Your task to perform on an android device: Open calendar and show me the second week of next month Image 0: 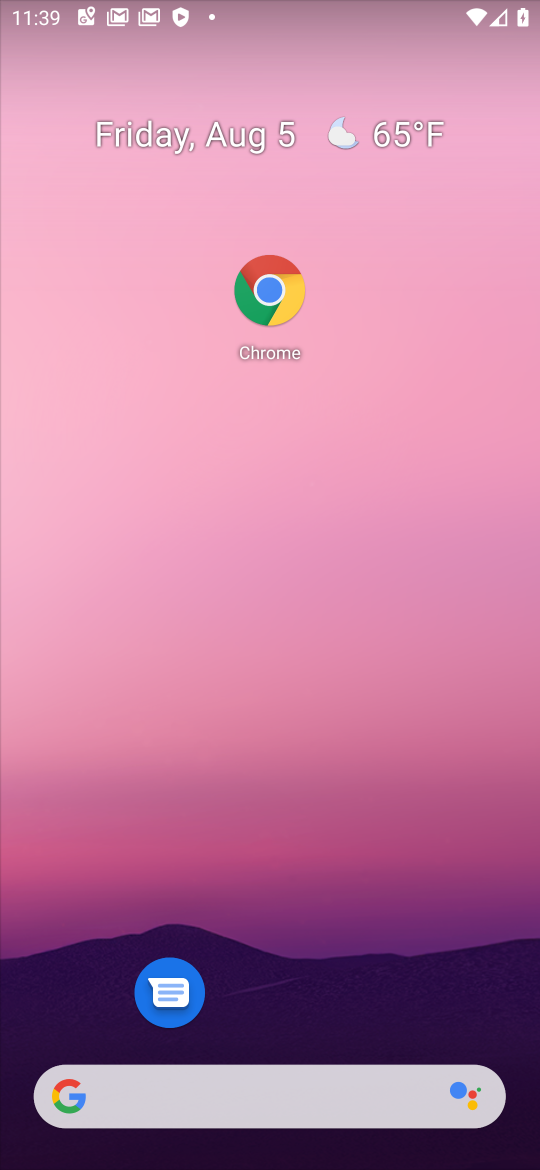
Step 0: drag from (425, 1017) to (513, 966)
Your task to perform on an android device: Open calendar and show me the second week of next month Image 1: 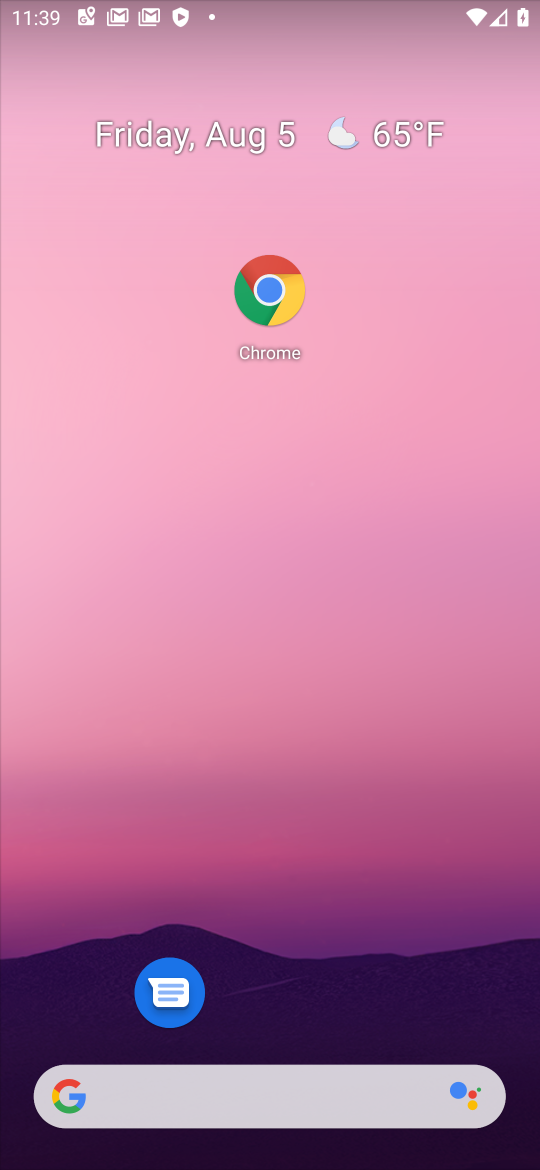
Step 1: drag from (311, 914) to (501, 23)
Your task to perform on an android device: Open calendar and show me the second week of next month Image 2: 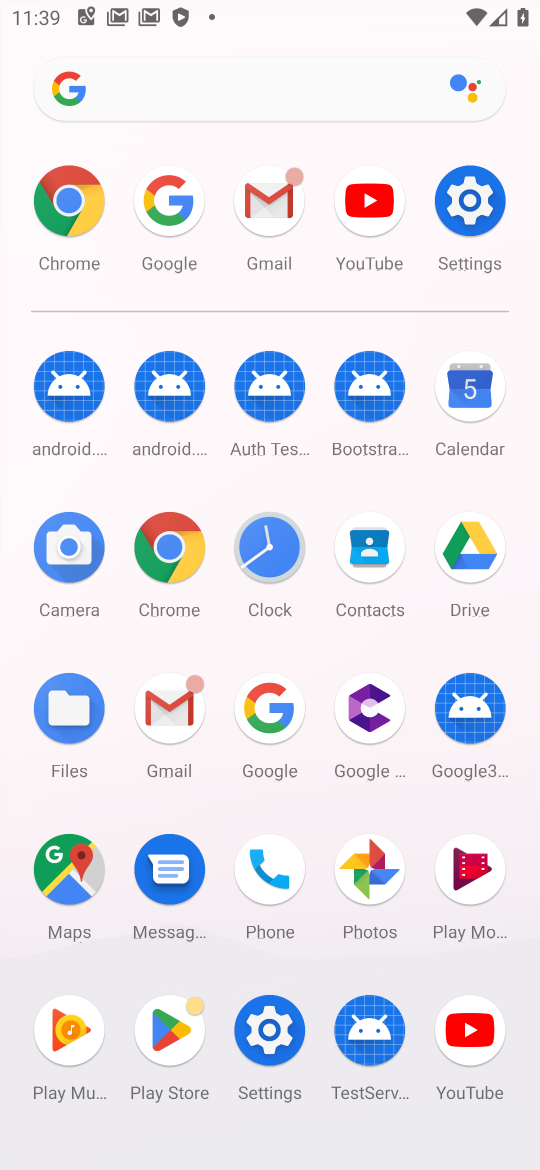
Step 2: click (472, 416)
Your task to perform on an android device: Open calendar and show me the second week of next month Image 3: 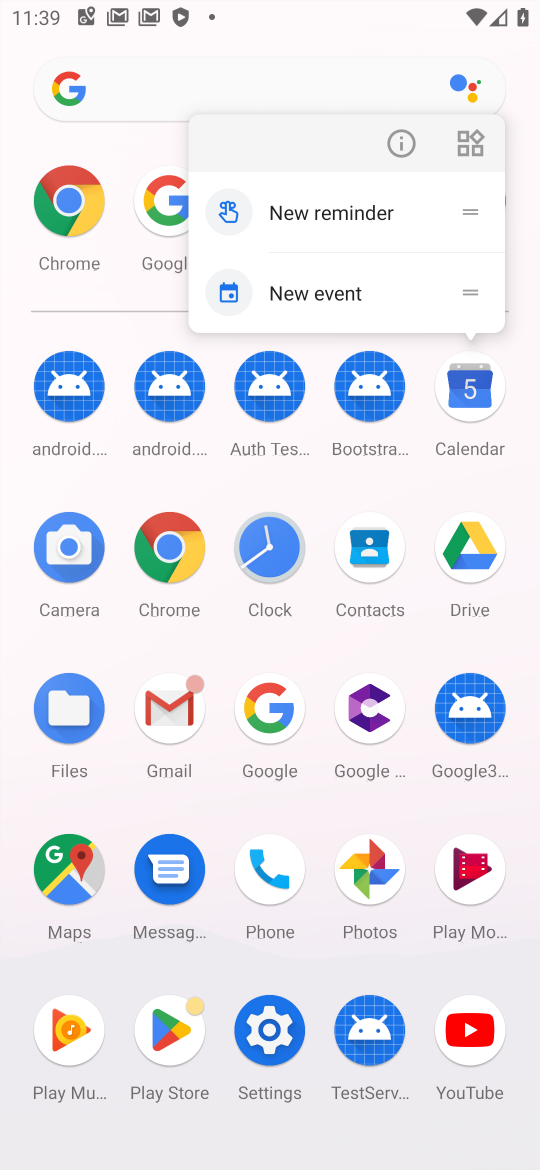
Step 3: click (472, 394)
Your task to perform on an android device: Open calendar and show me the second week of next month Image 4: 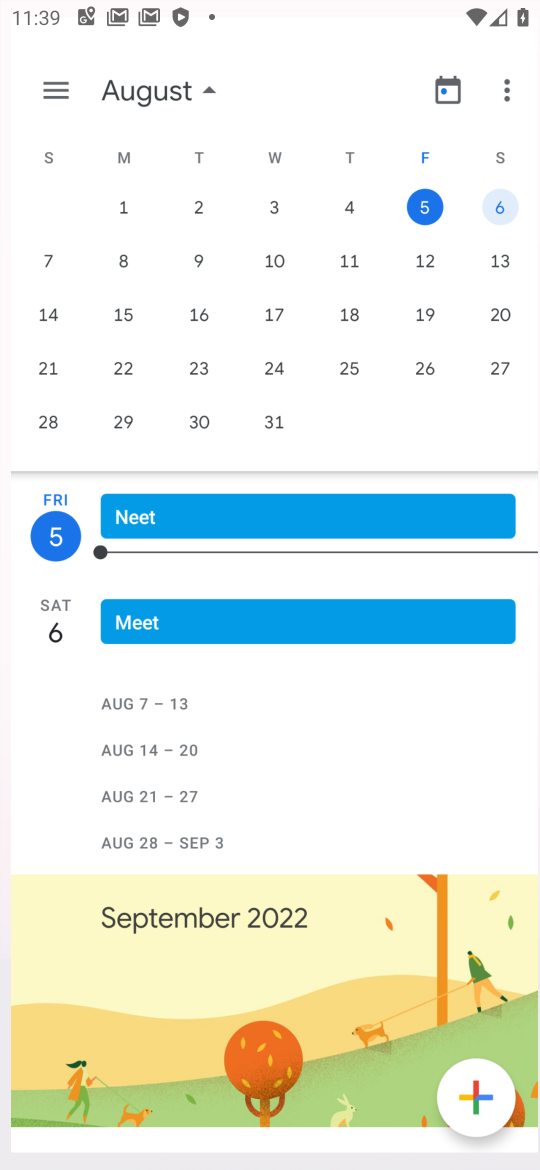
Step 4: click (472, 394)
Your task to perform on an android device: Open calendar and show me the second week of next month Image 5: 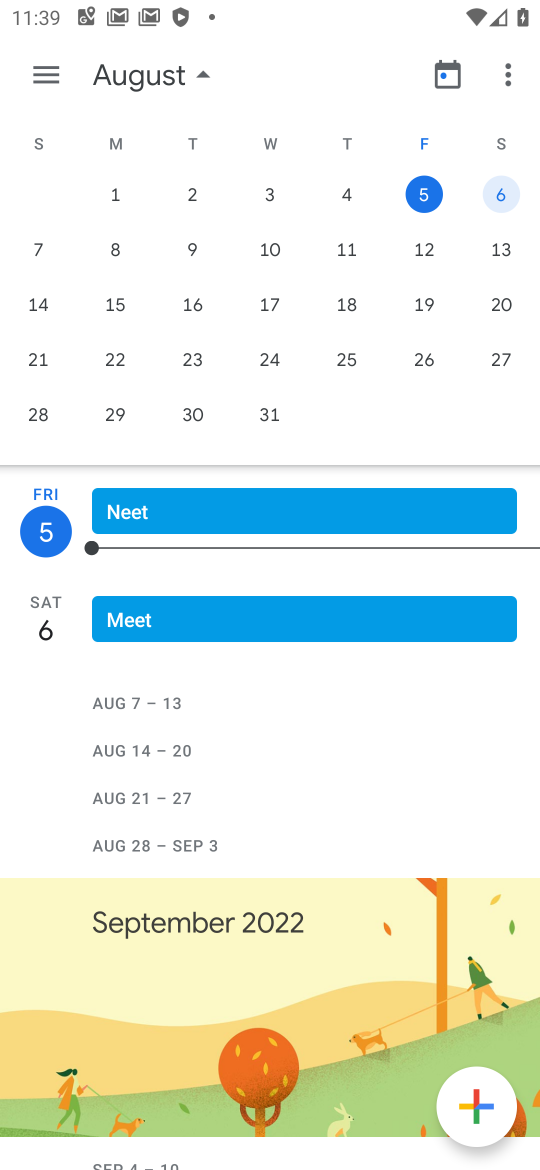
Step 5: drag from (352, 287) to (2, 389)
Your task to perform on an android device: Open calendar and show me the second week of next month Image 6: 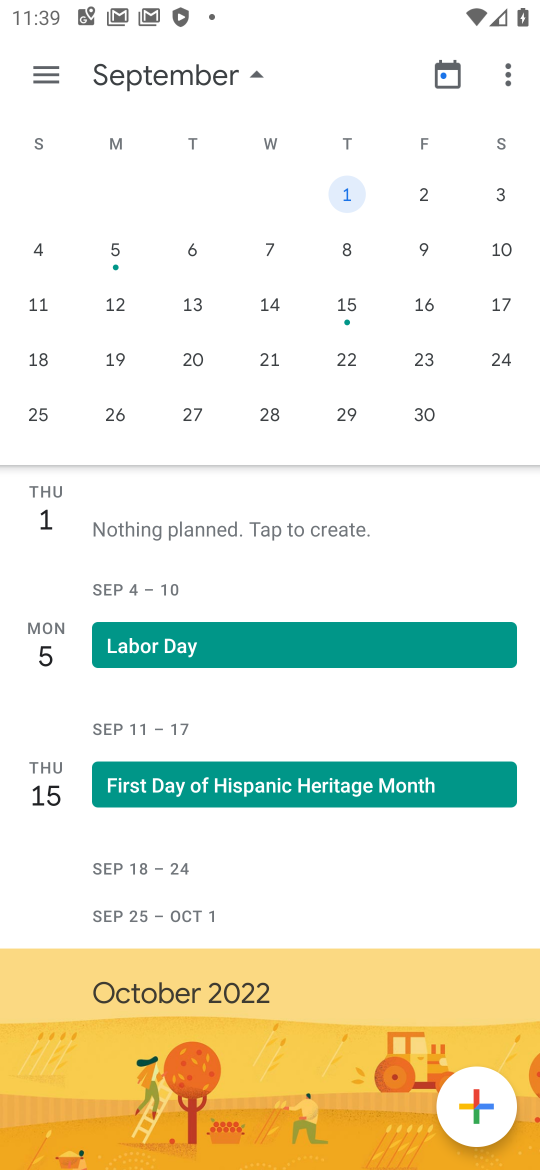
Step 6: click (266, 315)
Your task to perform on an android device: Open calendar and show me the second week of next month Image 7: 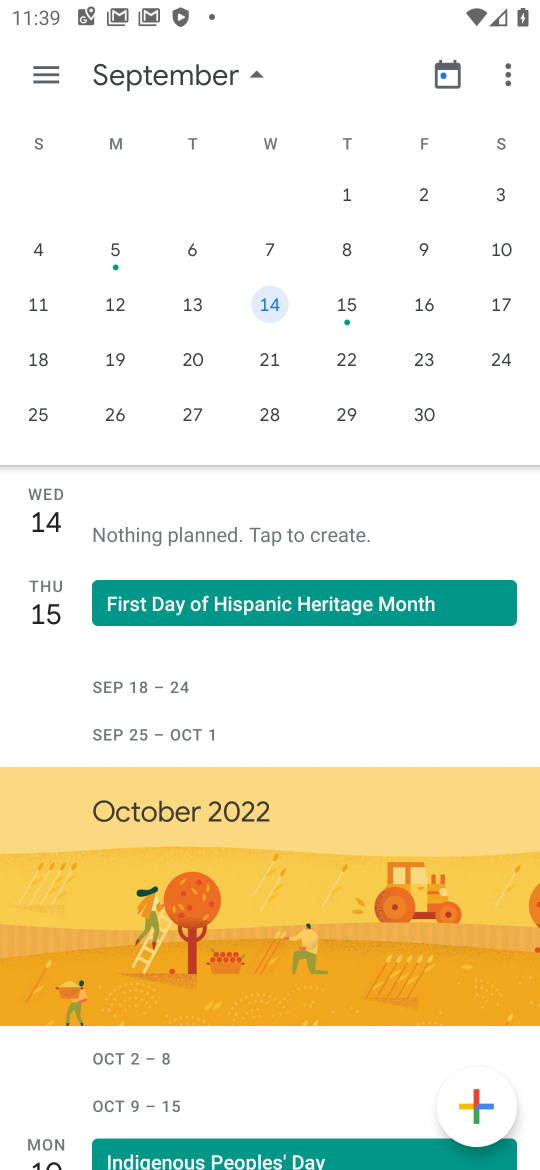
Step 7: task complete